Your task to perform on an android device: Add usb-a to usb-b to the cart on walmart Image 0: 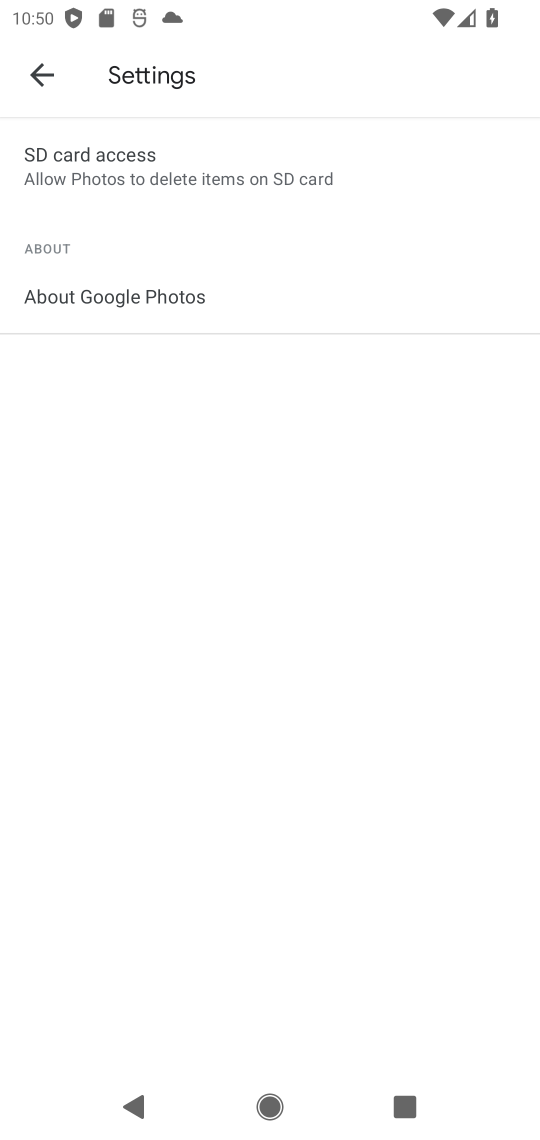
Step 0: press home button
Your task to perform on an android device: Add usb-a to usb-b to the cart on walmart Image 1: 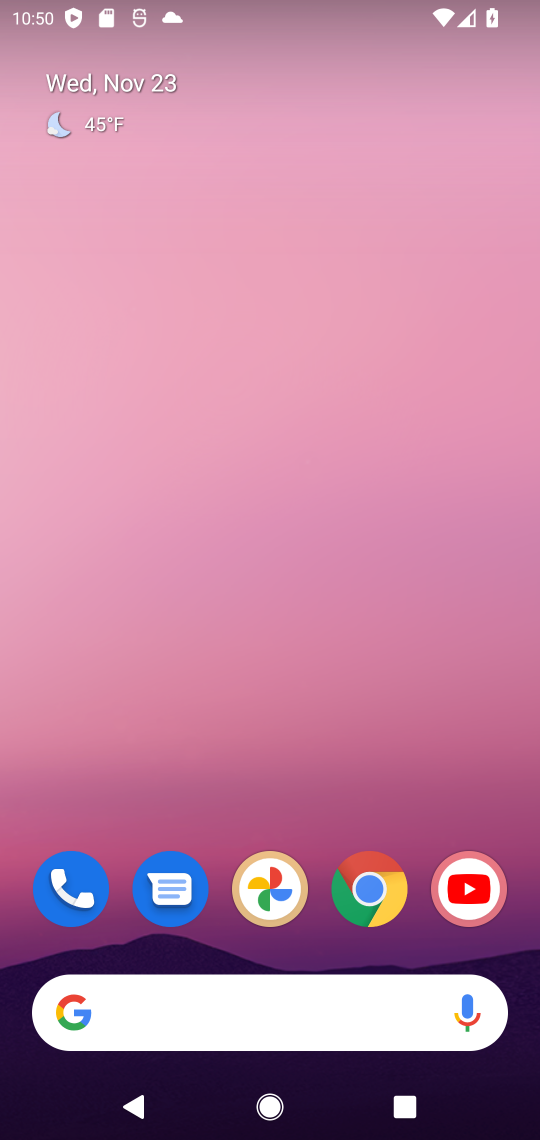
Step 1: click (351, 906)
Your task to perform on an android device: Add usb-a to usb-b to the cart on walmart Image 2: 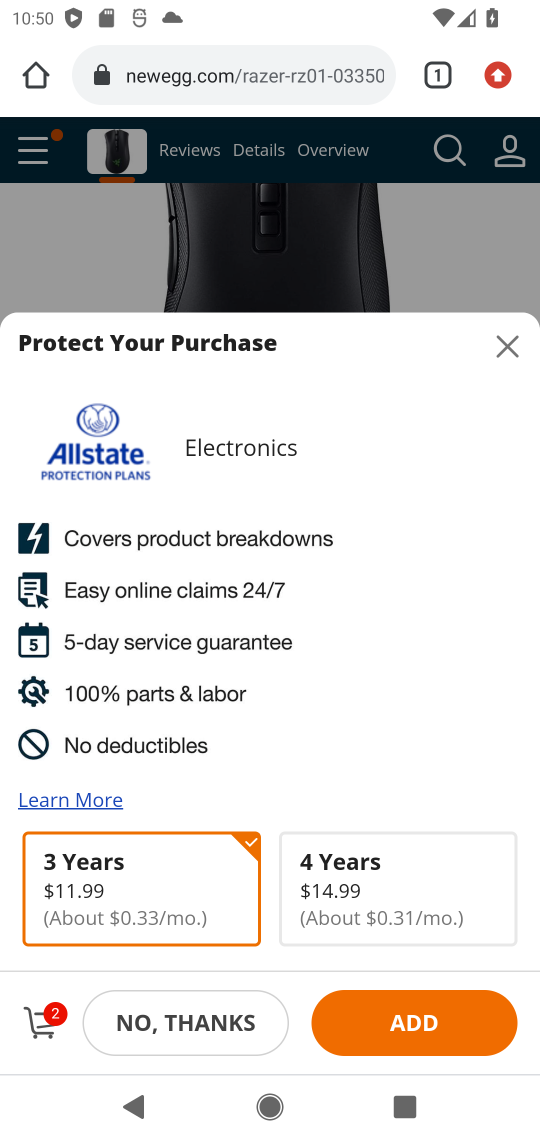
Step 2: click (181, 81)
Your task to perform on an android device: Add usb-a to usb-b to the cart on walmart Image 3: 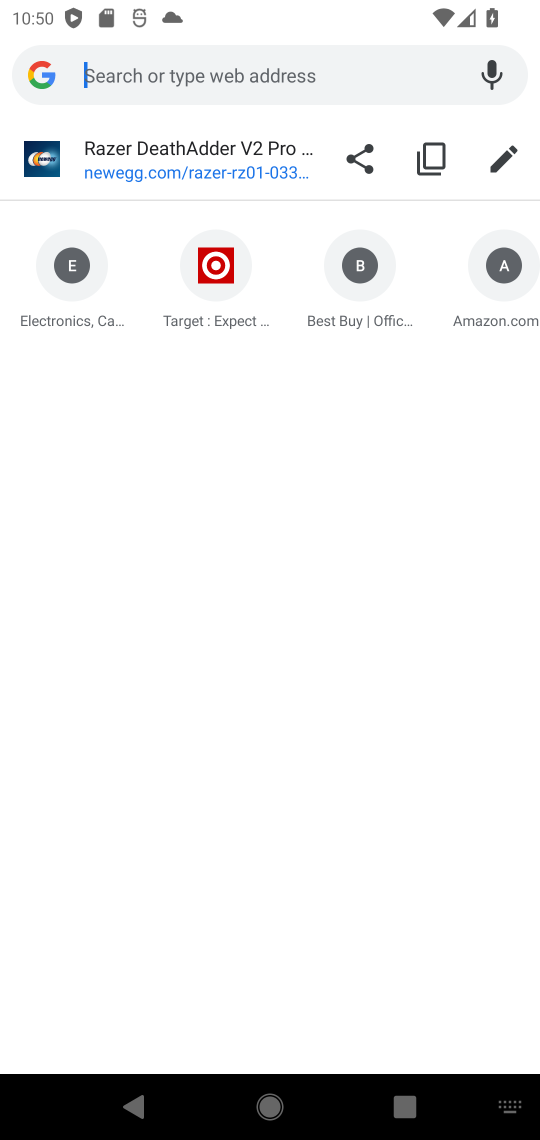
Step 3: type "walmart.com"
Your task to perform on an android device: Add usb-a to usb-b to the cart on walmart Image 4: 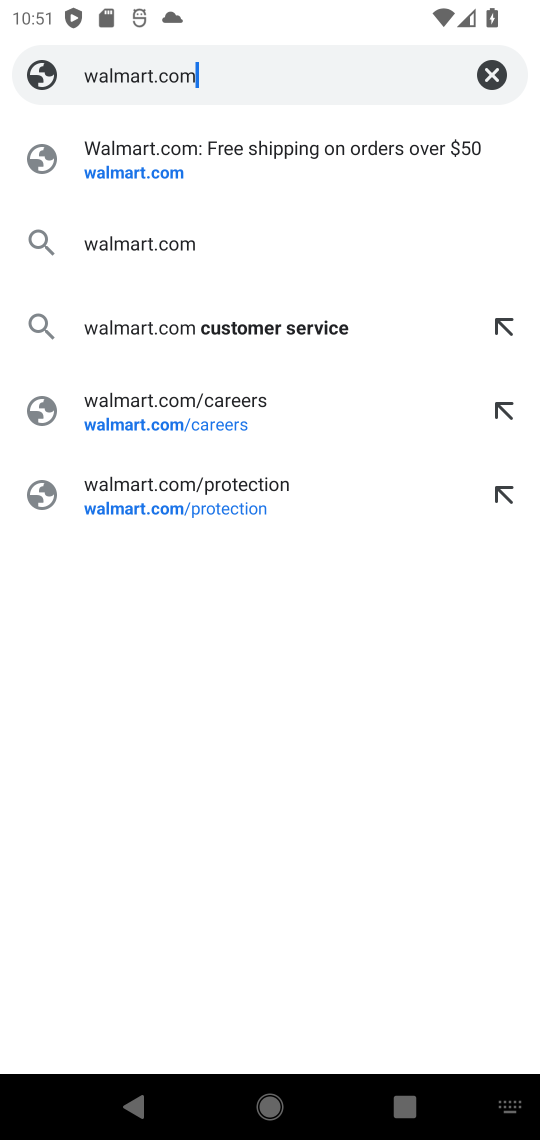
Step 4: click (137, 181)
Your task to perform on an android device: Add usb-a to usb-b to the cart on walmart Image 5: 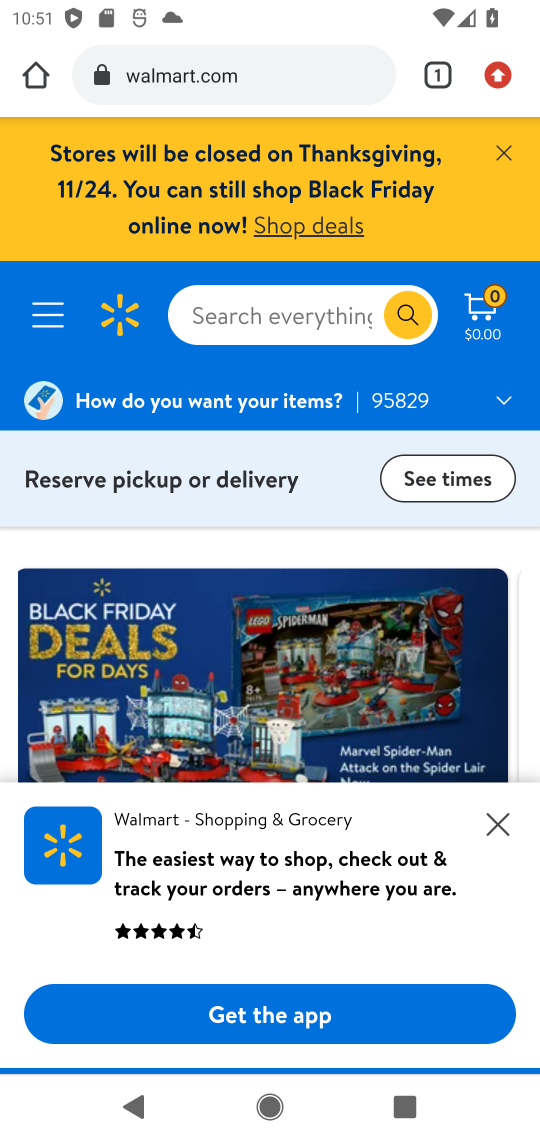
Step 5: click (209, 317)
Your task to perform on an android device: Add usb-a to usb-b to the cart on walmart Image 6: 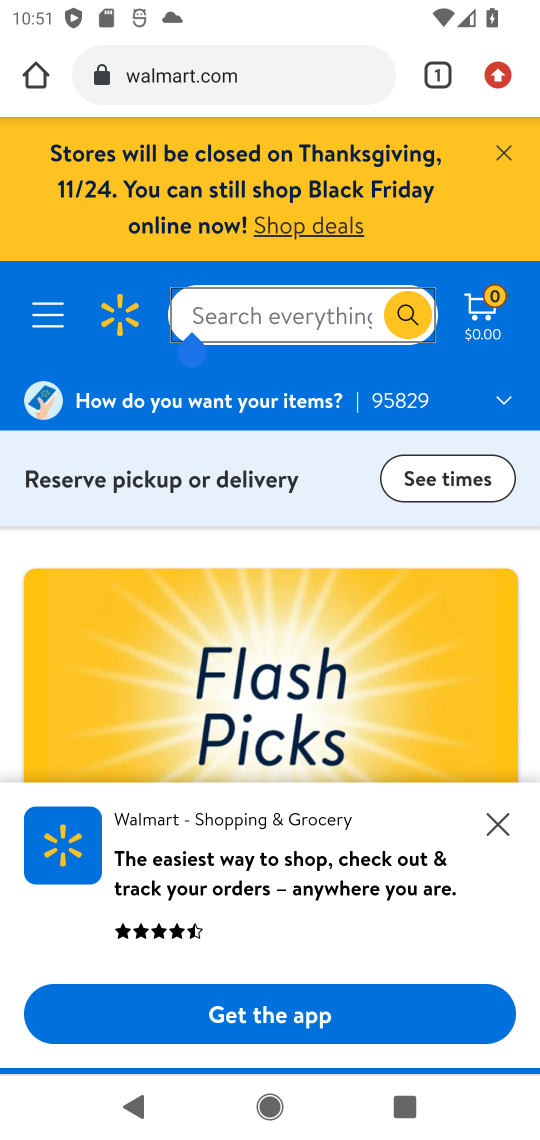
Step 6: type "usb-a to usb-b"
Your task to perform on an android device: Add usb-a to usb-b to the cart on walmart Image 7: 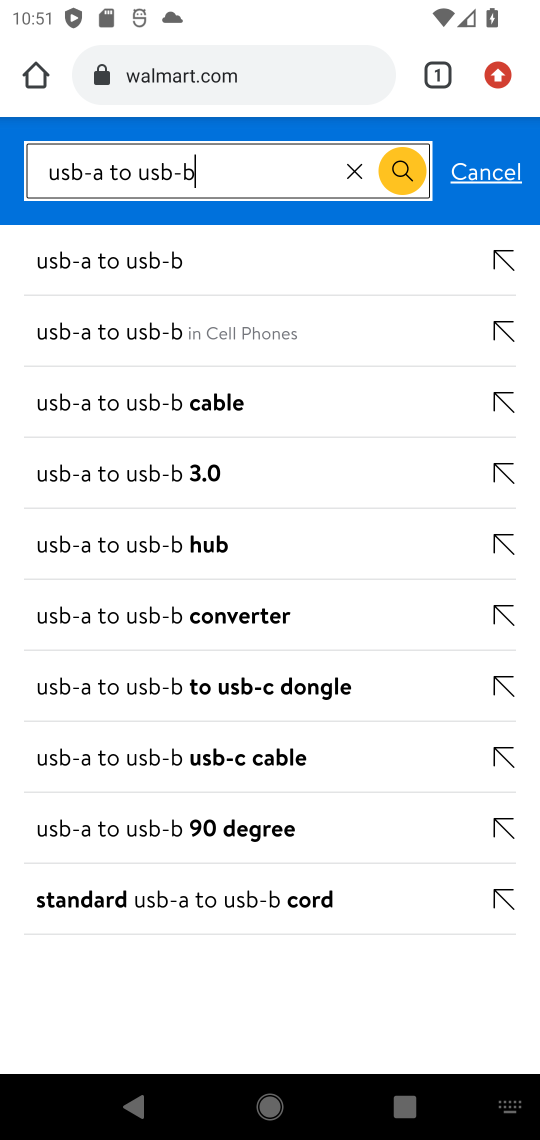
Step 7: click (128, 271)
Your task to perform on an android device: Add usb-a to usb-b to the cart on walmart Image 8: 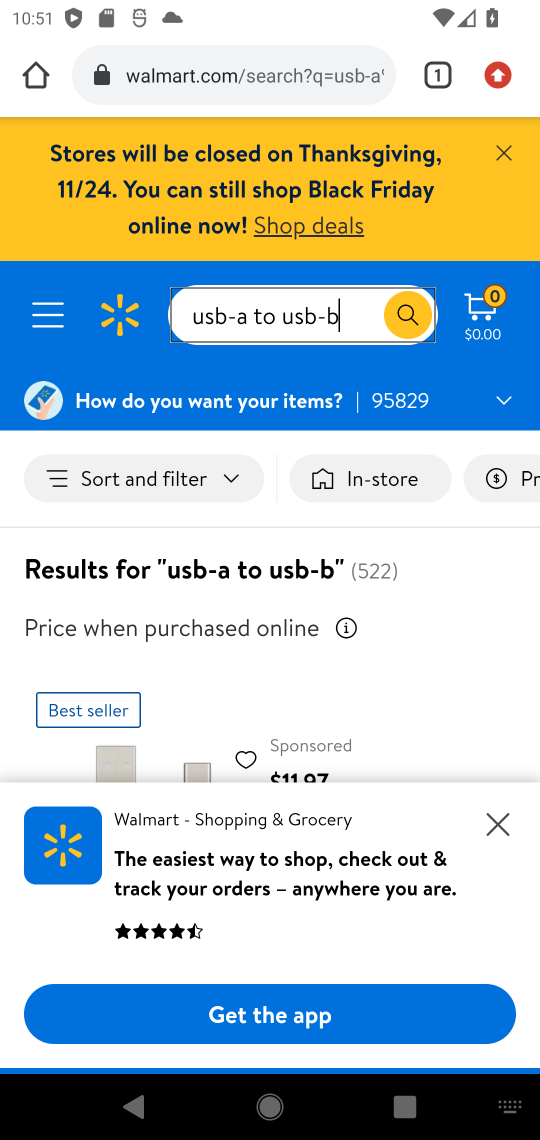
Step 8: drag from (304, 674) to (295, 397)
Your task to perform on an android device: Add usb-a to usb-b to the cart on walmart Image 9: 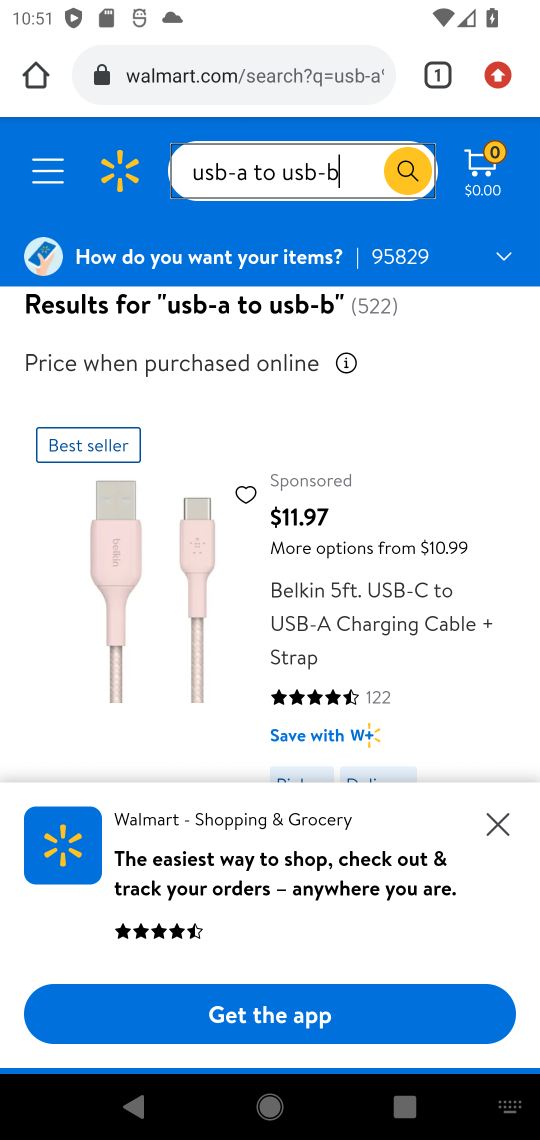
Step 9: drag from (188, 690) to (156, 422)
Your task to perform on an android device: Add usb-a to usb-b to the cart on walmart Image 10: 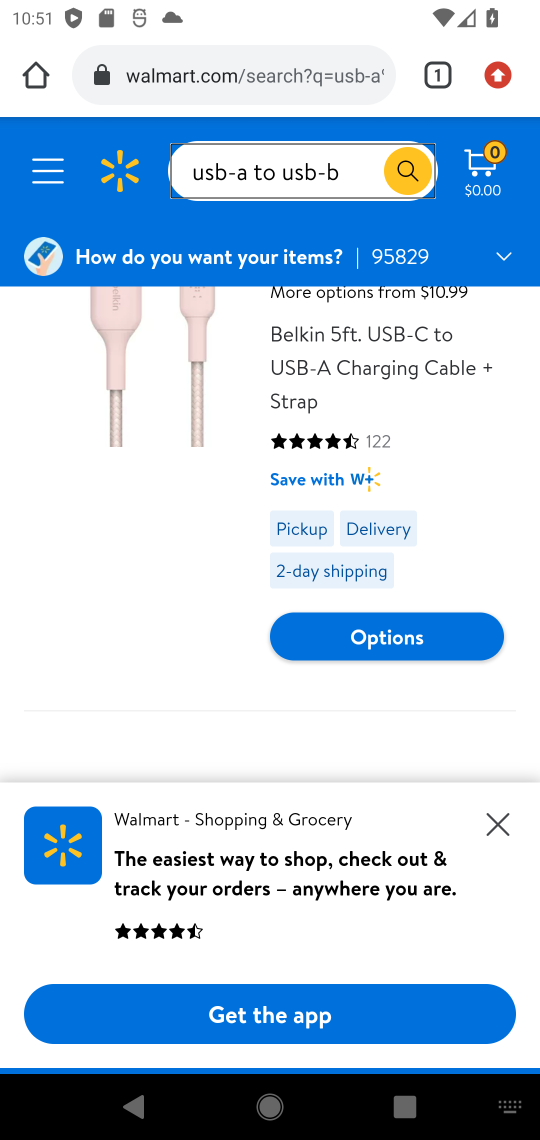
Step 10: click (495, 827)
Your task to perform on an android device: Add usb-a to usb-b to the cart on walmart Image 11: 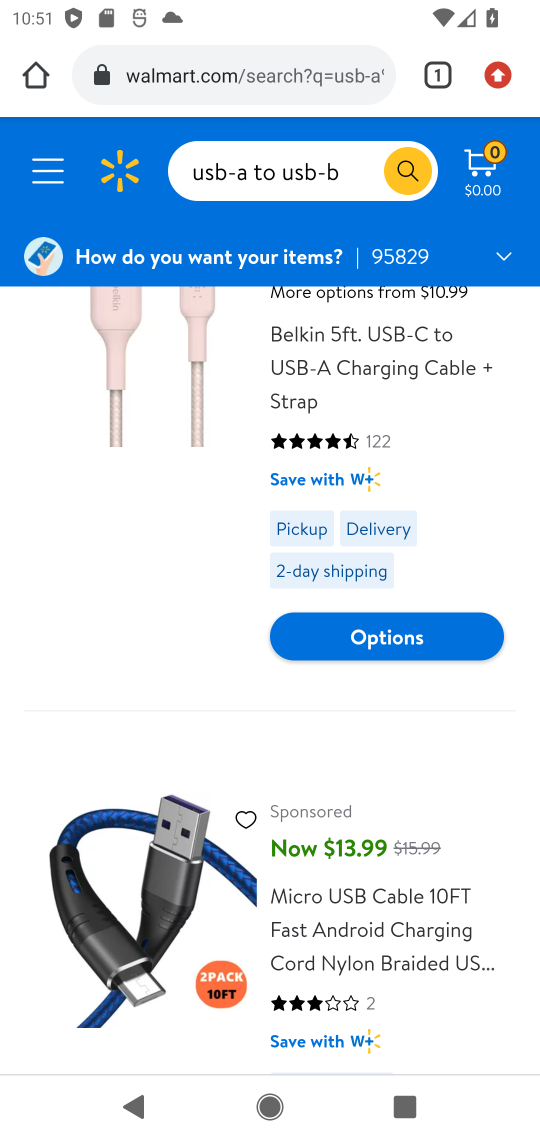
Step 11: drag from (127, 687) to (102, 480)
Your task to perform on an android device: Add usb-a to usb-b to the cart on walmart Image 12: 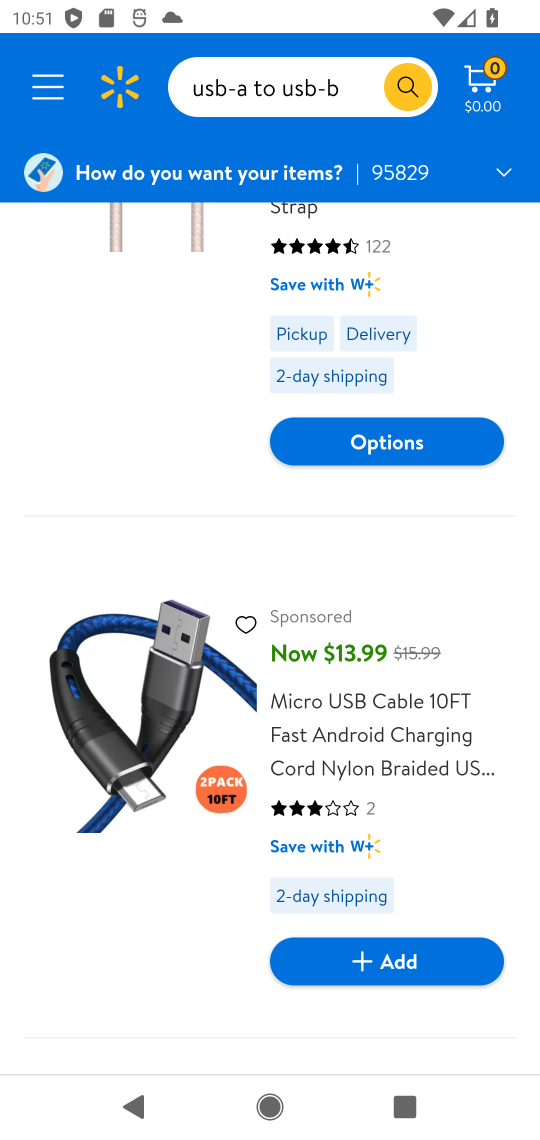
Step 12: drag from (141, 800) to (121, 490)
Your task to perform on an android device: Add usb-a to usb-b to the cart on walmart Image 13: 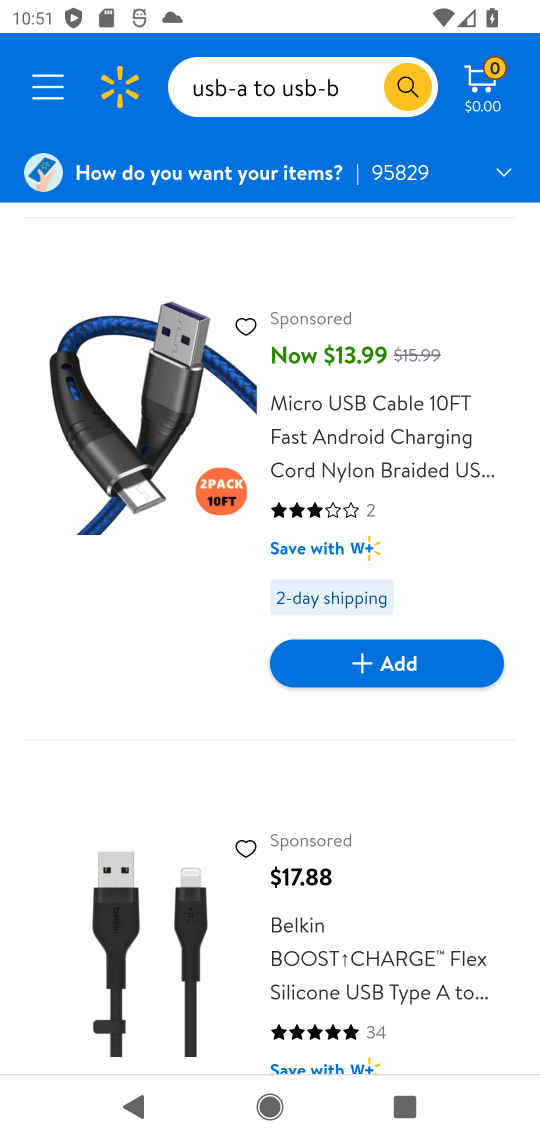
Step 13: click (126, 498)
Your task to perform on an android device: Add usb-a to usb-b to the cart on walmart Image 14: 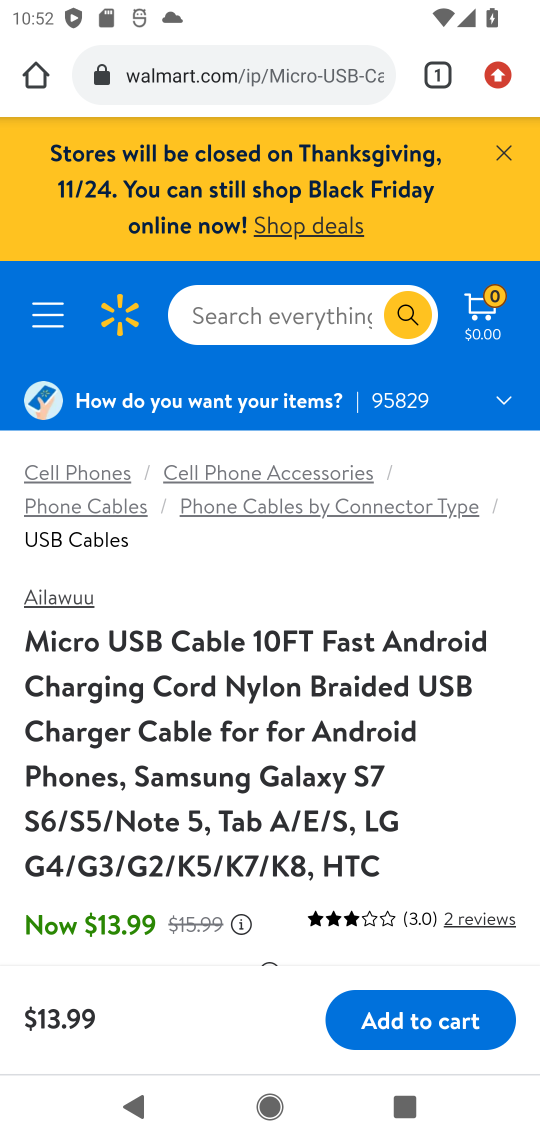
Step 14: press back button
Your task to perform on an android device: Add usb-a to usb-b to the cart on walmart Image 15: 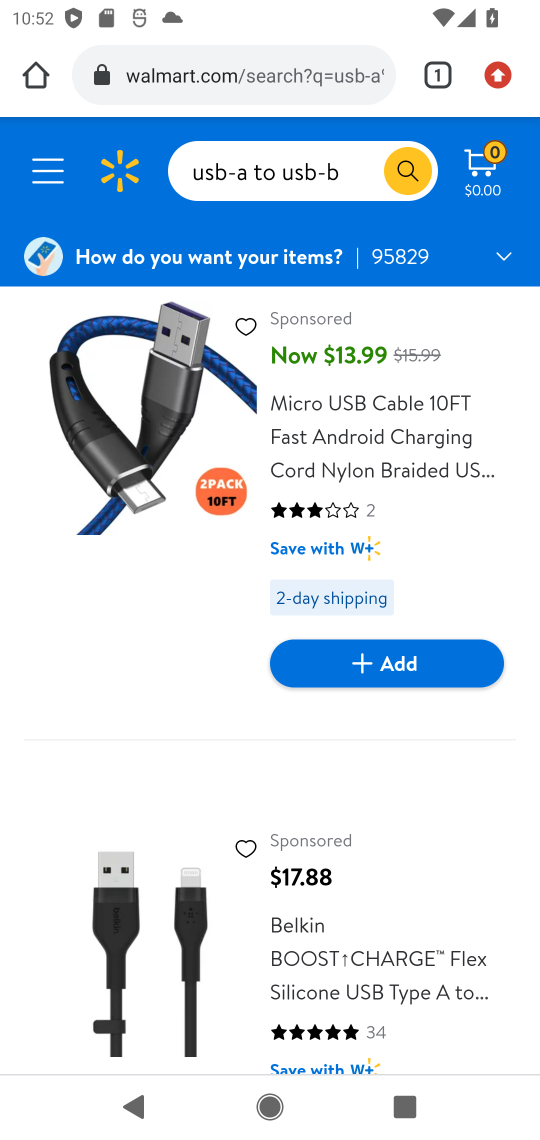
Step 15: drag from (197, 844) to (183, 484)
Your task to perform on an android device: Add usb-a to usb-b to the cart on walmart Image 16: 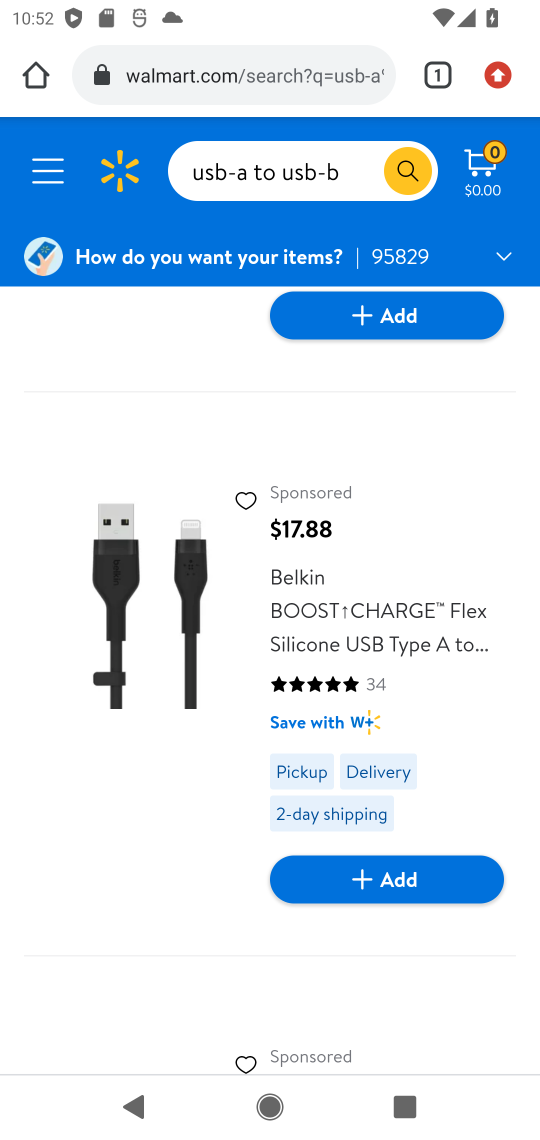
Step 16: click (132, 631)
Your task to perform on an android device: Add usb-a to usb-b to the cart on walmart Image 17: 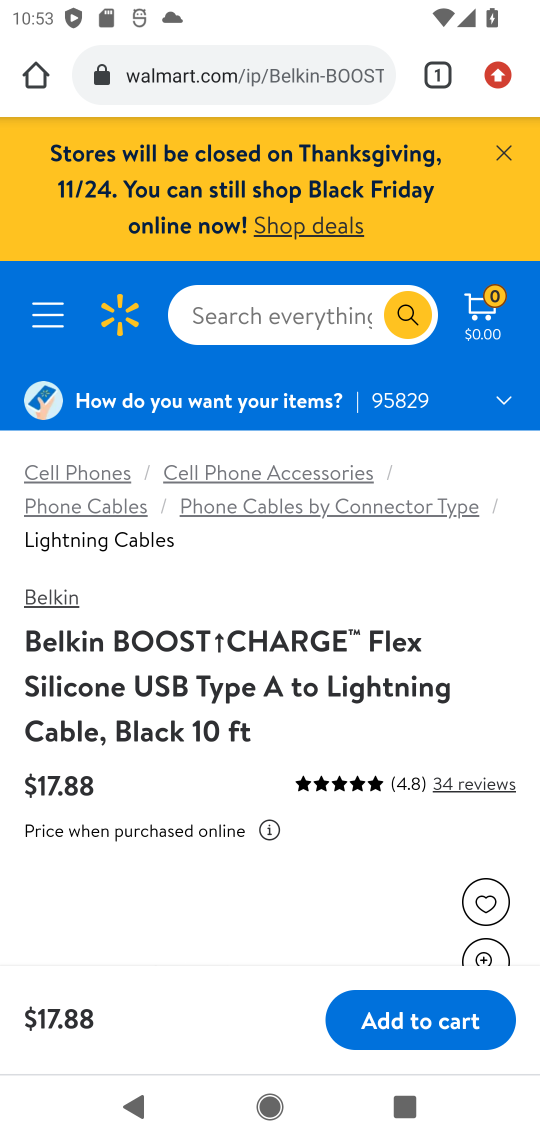
Step 17: press back button
Your task to perform on an android device: Add usb-a to usb-b to the cart on walmart Image 18: 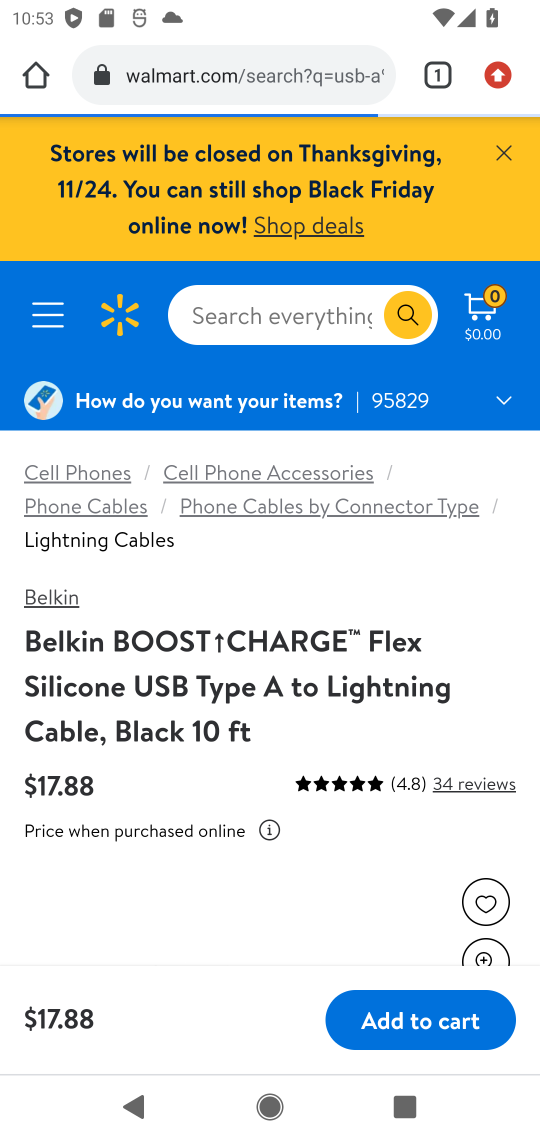
Step 18: drag from (260, 720) to (282, 319)
Your task to perform on an android device: Add usb-a to usb-b to the cart on walmart Image 19: 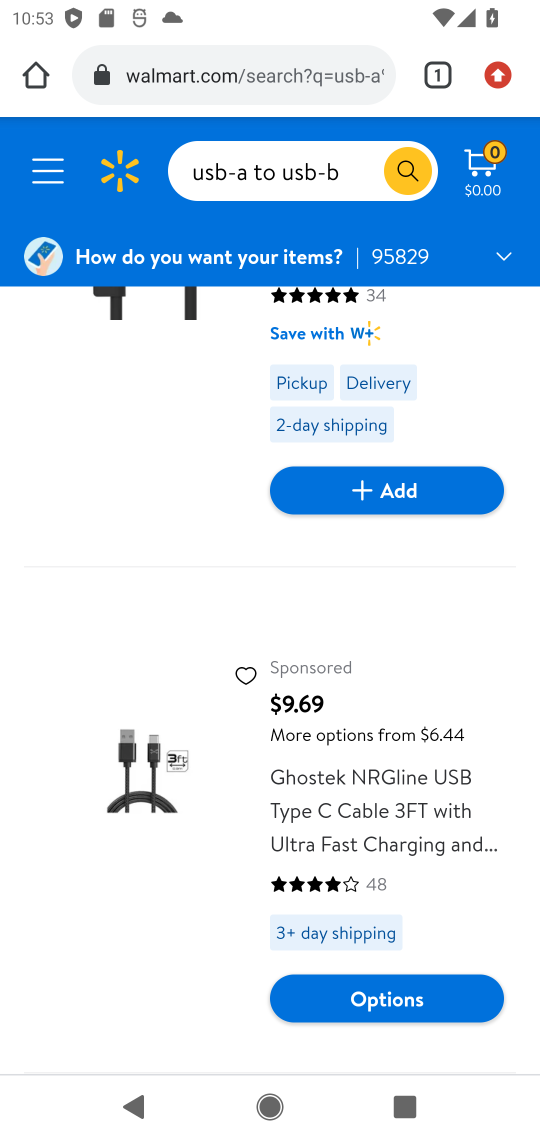
Step 19: drag from (164, 828) to (208, 571)
Your task to perform on an android device: Add usb-a to usb-b to the cart on walmart Image 20: 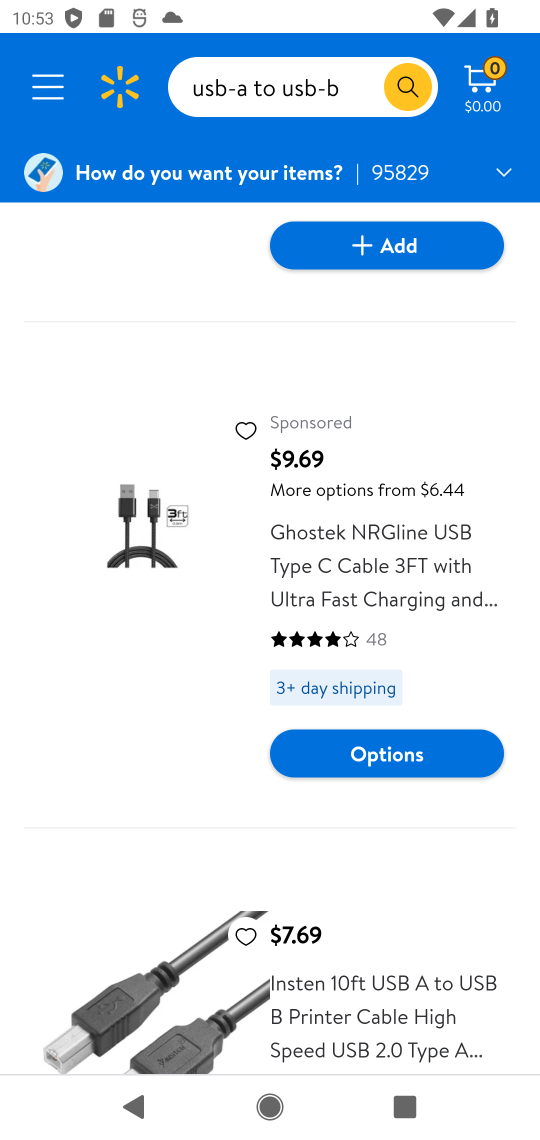
Step 20: drag from (165, 922) to (213, 630)
Your task to perform on an android device: Add usb-a to usb-b to the cart on walmart Image 21: 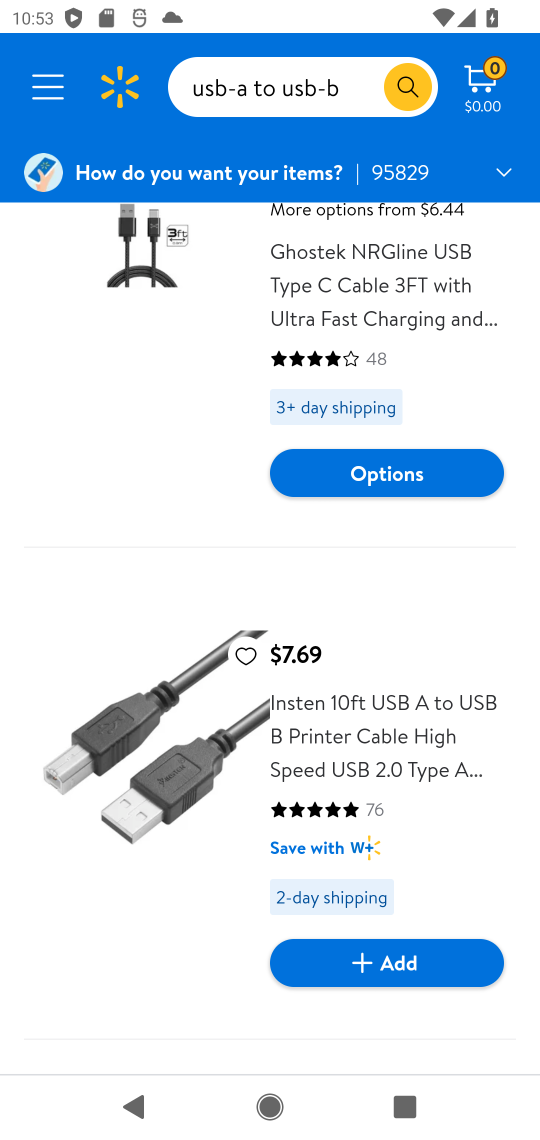
Step 21: click (395, 968)
Your task to perform on an android device: Add usb-a to usb-b to the cart on walmart Image 22: 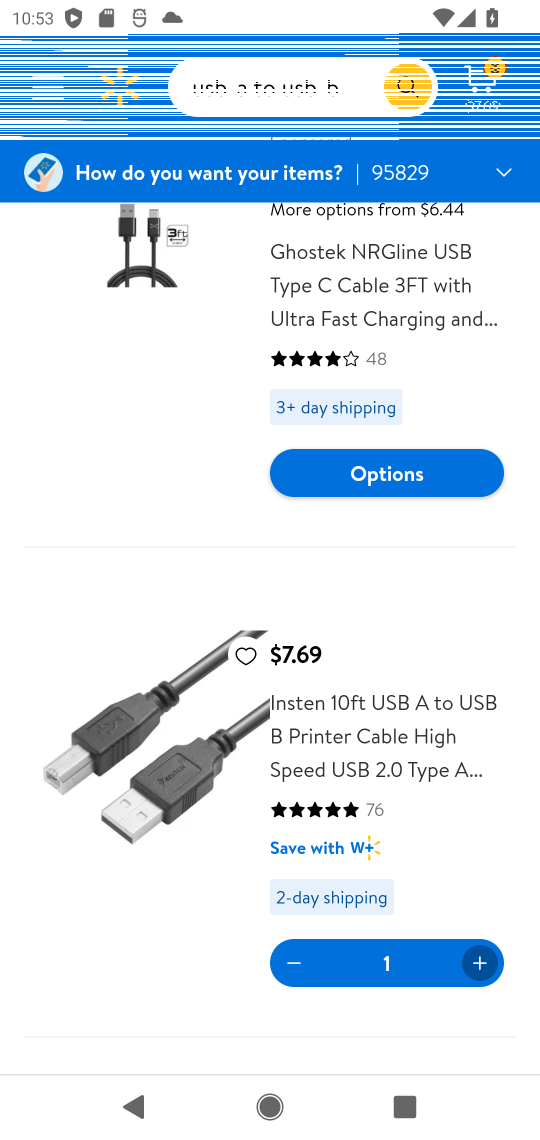
Step 22: task complete